Your task to perform on an android device: check out phone information Image 0: 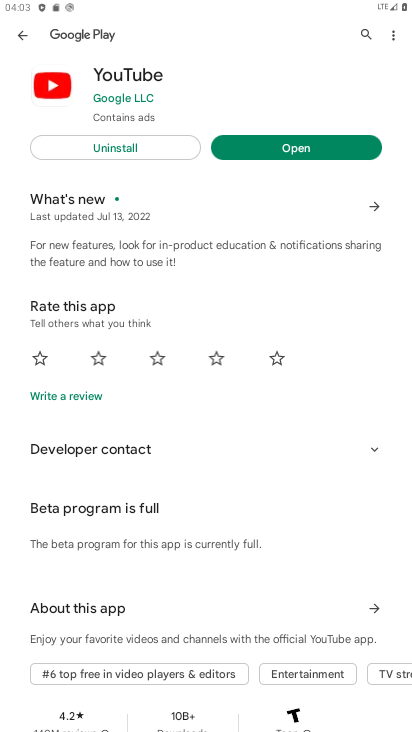
Step 0: press home button
Your task to perform on an android device: check out phone information Image 1: 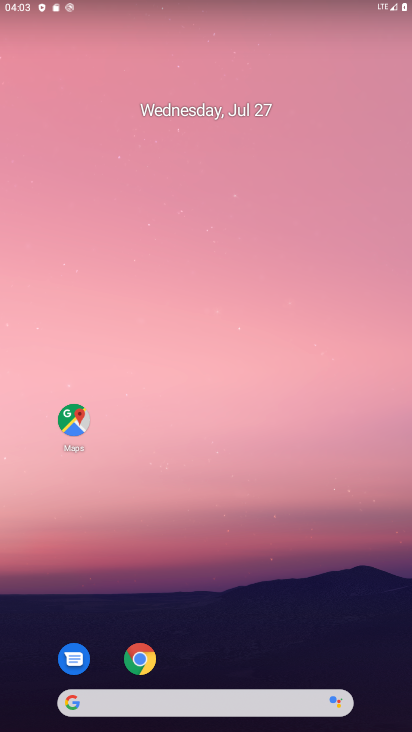
Step 1: drag from (231, 642) to (270, 38)
Your task to perform on an android device: check out phone information Image 2: 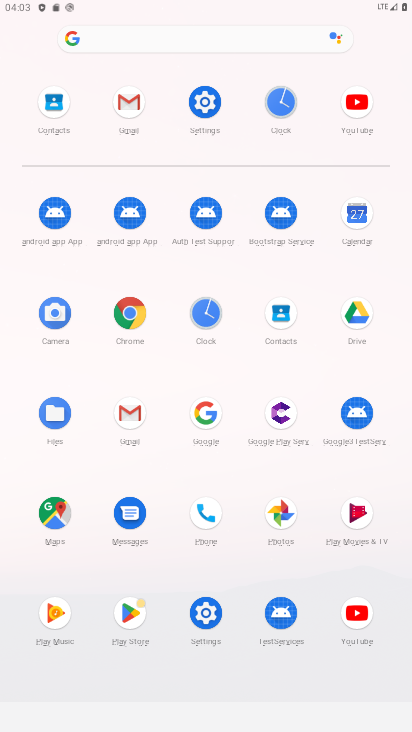
Step 2: click (212, 100)
Your task to perform on an android device: check out phone information Image 3: 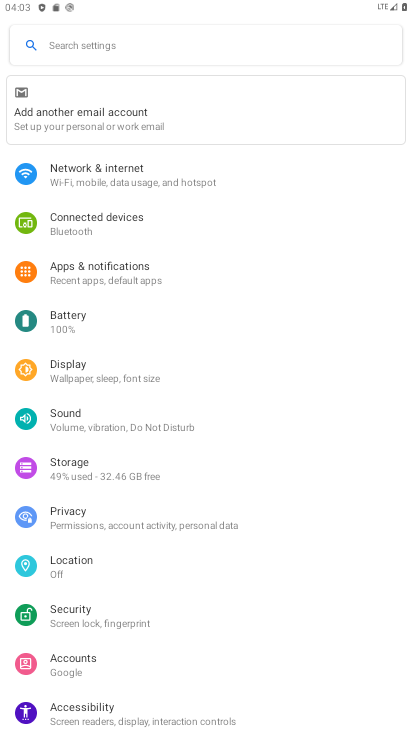
Step 3: drag from (231, 619) to (232, 183)
Your task to perform on an android device: check out phone information Image 4: 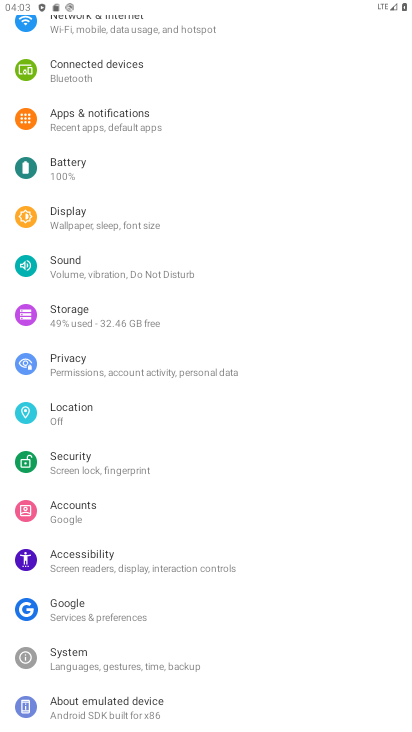
Step 4: click (119, 702)
Your task to perform on an android device: check out phone information Image 5: 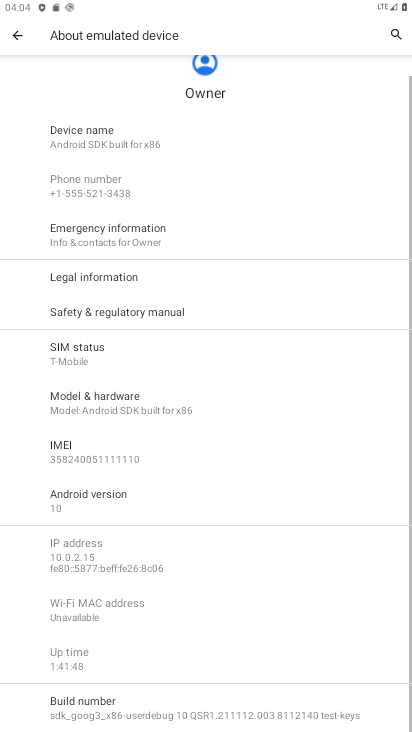
Step 5: task complete